Your task to perform on an android device: turn off javascript in the chrome app Image 0: 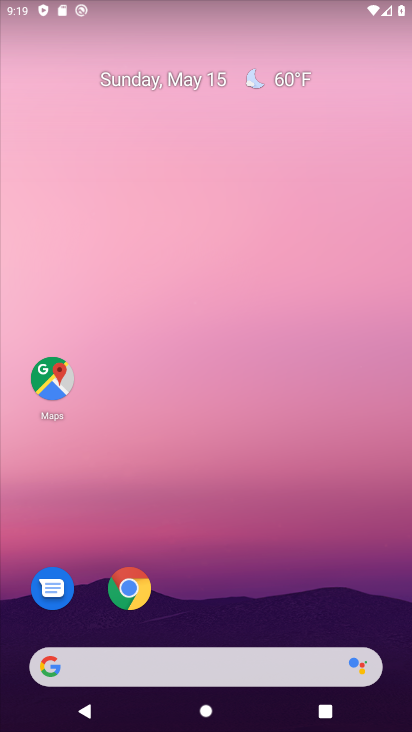
Step 0: drag from (252, 612) to (276, 203)
Your task to perform on an android device: turn off javascript in the chrome app Image 1: 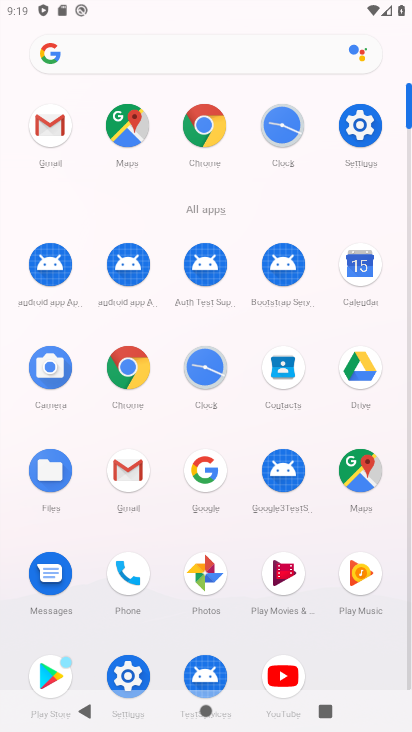
Step 1: click (128, 390)
Your task to perform on an android device: turn off javascript in the chrome app Image 2: 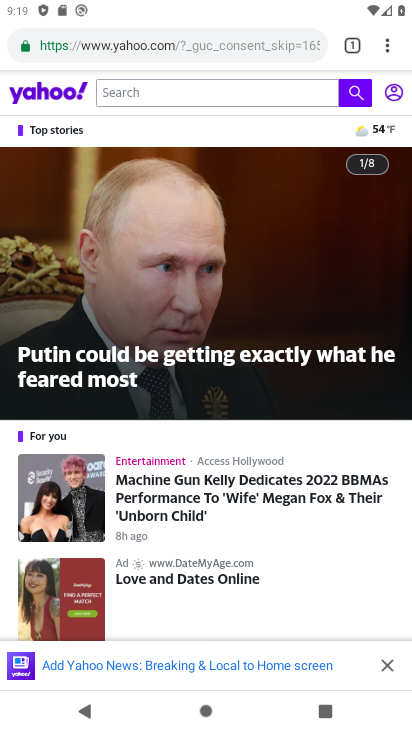
Step 2: click (390, 48)
Your task to perform on an android device: turn off javascript in the chrome app Image 3: 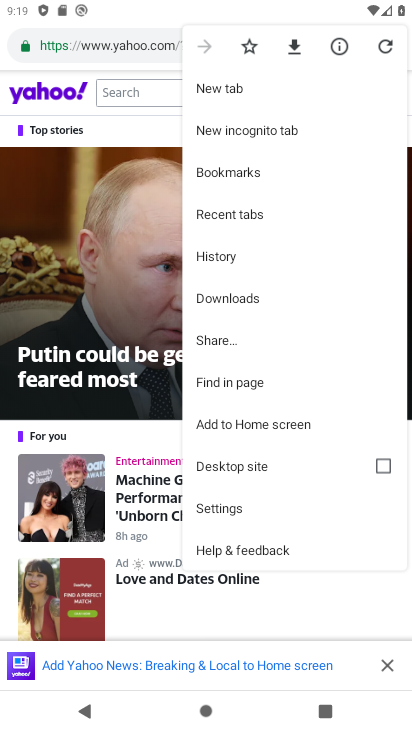
Step 3: click (232, 512)
Your task to perform on an android device: turn off javascript in the chrome app Image 4: 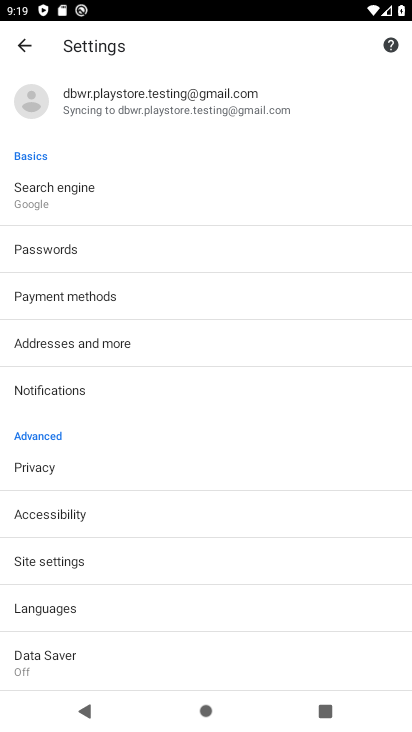
Step 4: click (59, 566)
Your task to perform on an android device: turn off javascript in the chrome app Image 5: 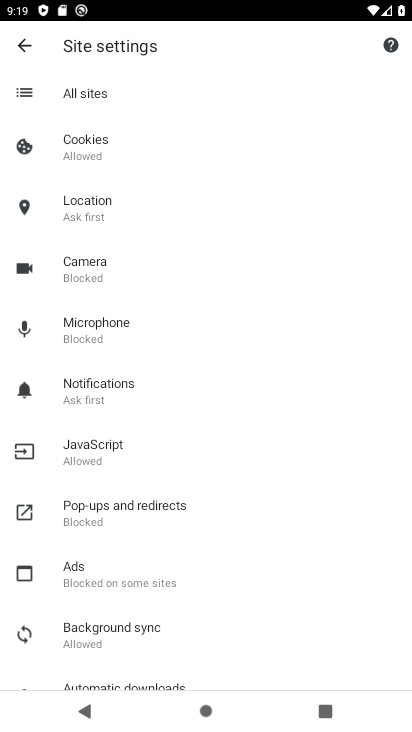
Step 5: click (99, 450)
Your task to perform on an android device: turn off javascript in the chrome app Image 6: 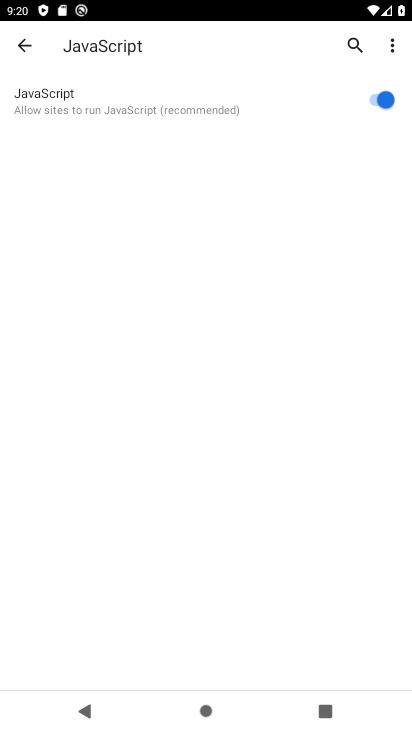
Step 6: click (365, 92)
Your task to perform on an android device: turn off javascript in the chrome app Image 7: 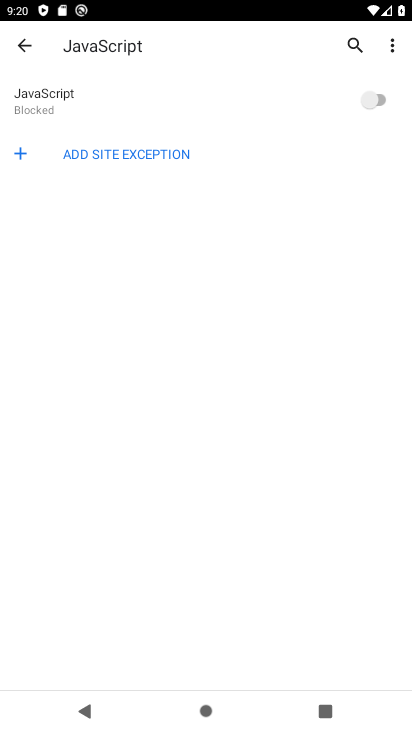
Step 7: task complete